Your task to perform on an android device: show emergency info Image 0: 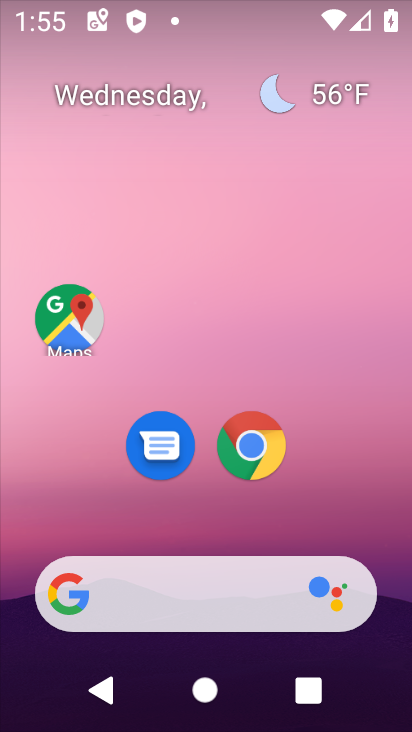
Step 0: click (193, 551)
Your task to perform on an android device: show emergency info Image 1: 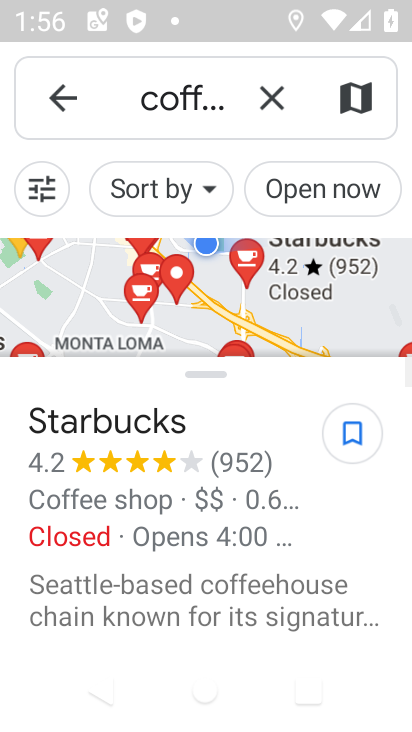
Step 1: press home button
Your task to perform on an android device: show emergency info Image 2: 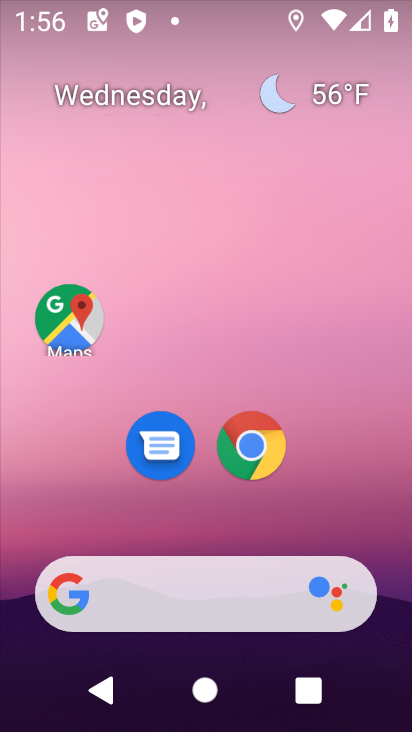
Step 2: drag from (208, 541) to (189, 17)
Your task to perform on an android device: show emergency info Image 3: 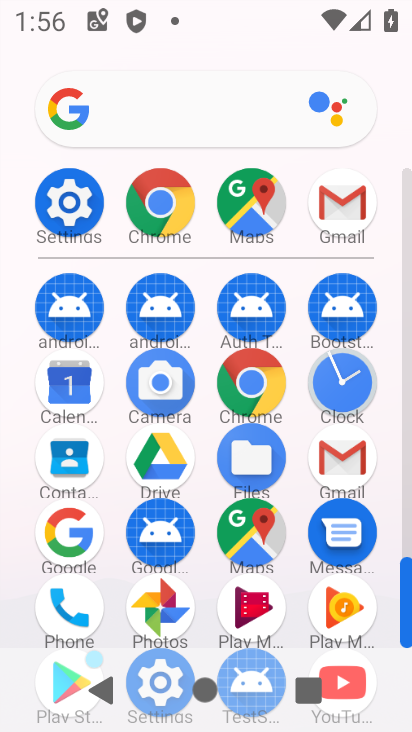
Step 3: click (52, 221)
Your task to perform on an android device: show emergency info Image 4: 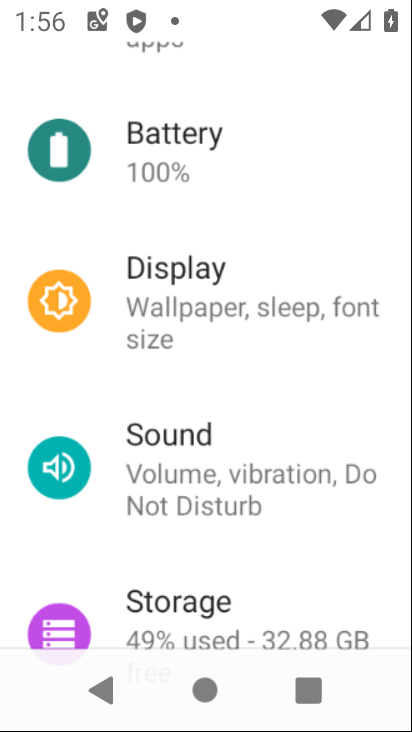
Step 4: drag from (167, 486) to (176, 145)
Your task to perform on an android device: show emergency info Image 5: 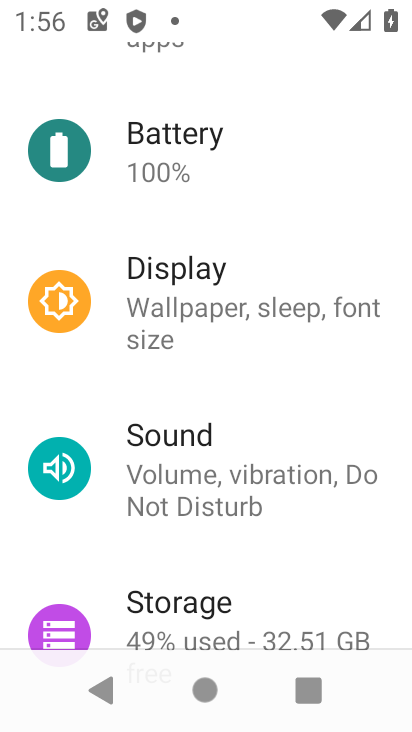
Step 5: drag from (217, 528) to (183, 180)
Your task to perform on an android device: show emergency info Image 6: 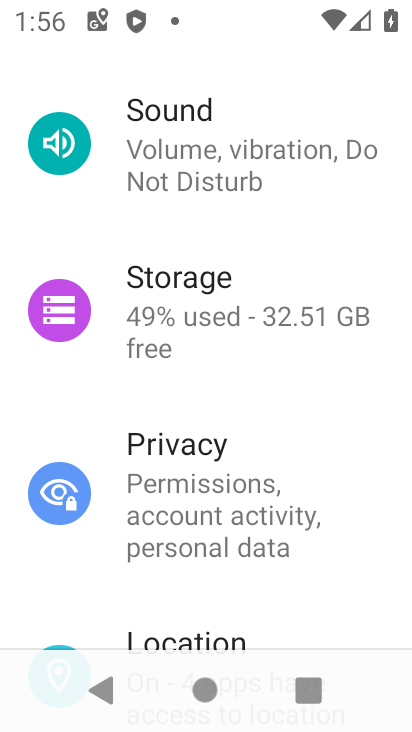
Step 6: drag from (200, 521) to (166, 159)
Your task to perform on an android device: show emergency info Image 7: 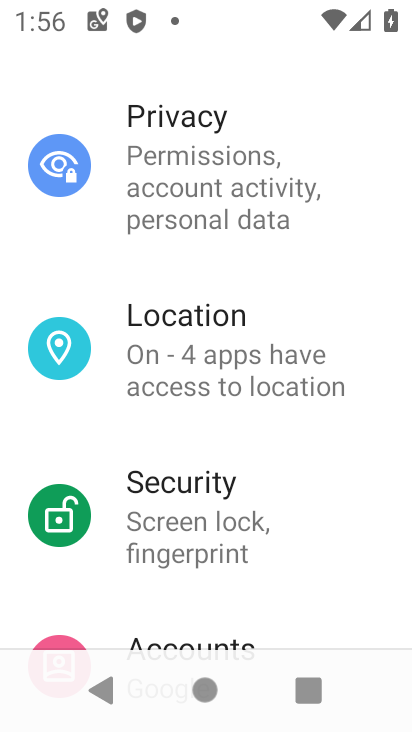
Step 7: drag from (241, 527) to (213, 158)
Your task to perform on an android device: show emergency info Image 8: 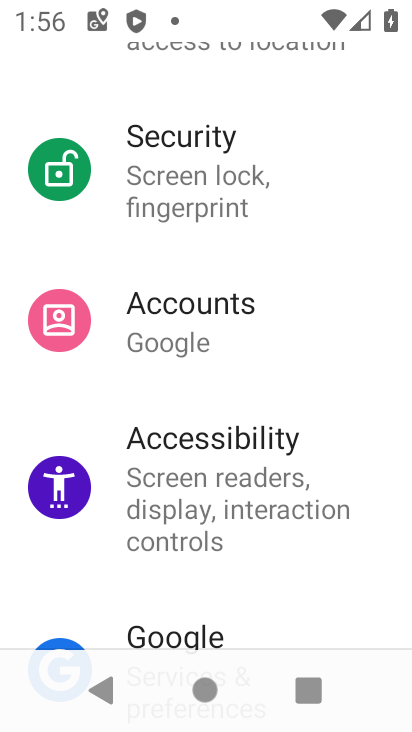
Step 8: drag from (232, 539) to (223, 185)
Your task to perform on an android device: show emergency info Image 9: 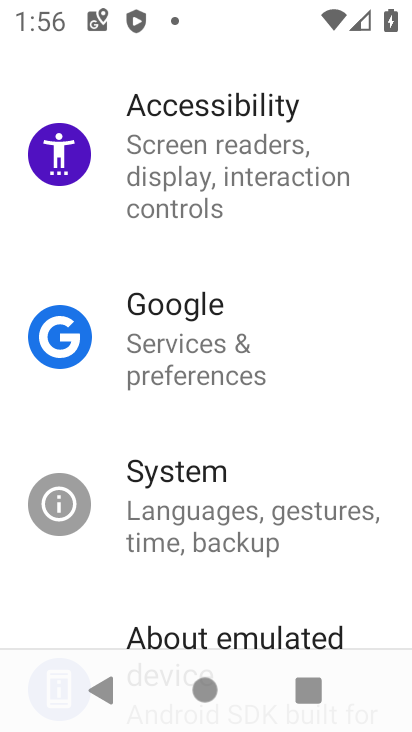
Step 9: click (204, 626)
Your task to perform on an android device: show emergency info Image 10: 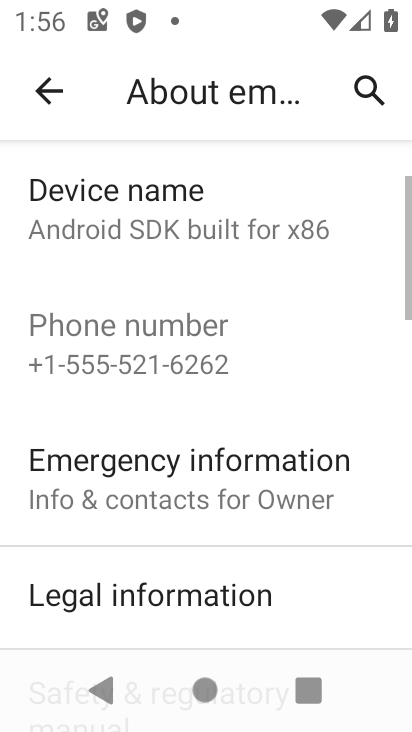
Step 10: click (141, 490)
Your task to perform on an android device: show emergency info Image 11: 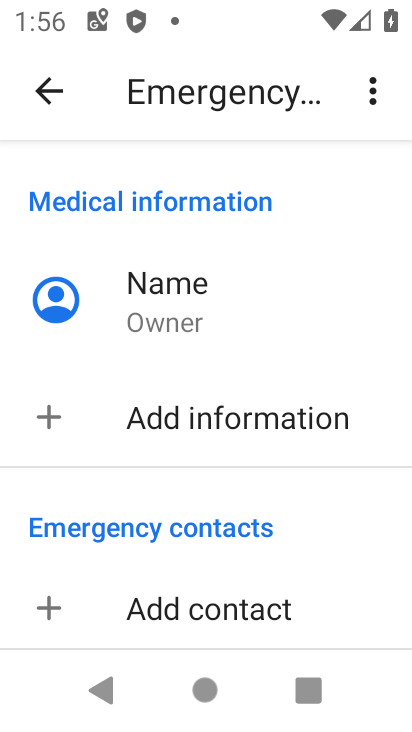
Step 11: task complete